Your task to perform on an android device: Open the Play Movies app and select the watchlist tab. Image 0: 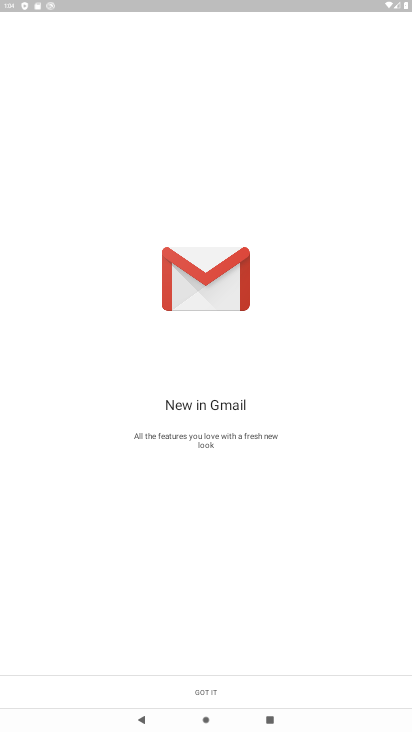
Step 0: press home button
Your task to perform on an android device: Open the Play Movies app and select the watchlist tab. Image 1: 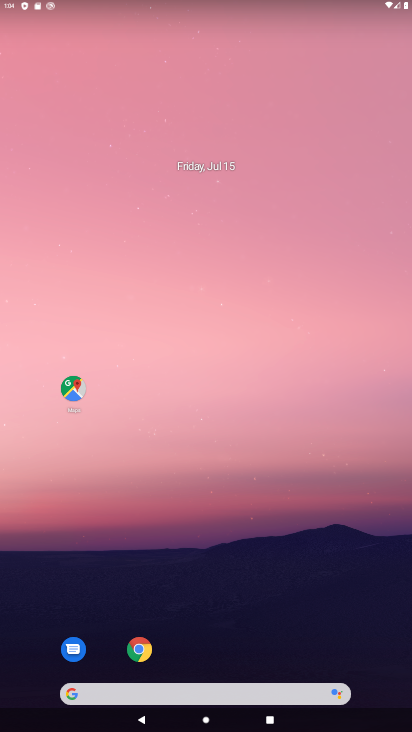
Step 1: drag from (203, 692) to (317, 116)
Your task to perform on an android device: Open the Play Movies app and select the watchlist tab. Image 2: 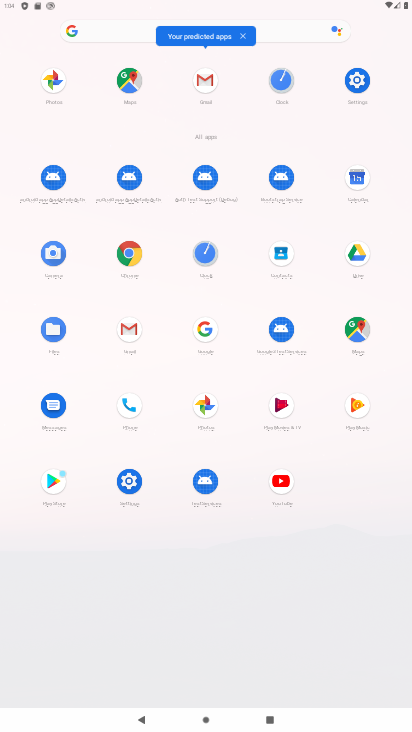
Step 2: click (282, 411)
Your task to perform on an android device: Open the Play Movies app and select the watchlist tab. Image 3: 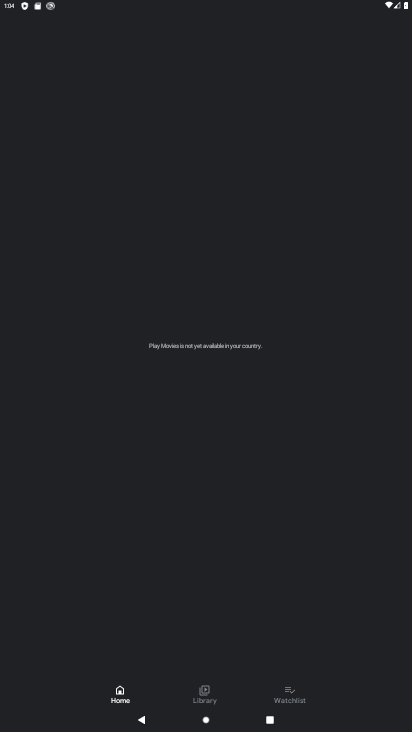
Step 3: click (291, 691)
Your task to perform on an android device: Open the Play Movies app and select the watchlist tab. Image 4: 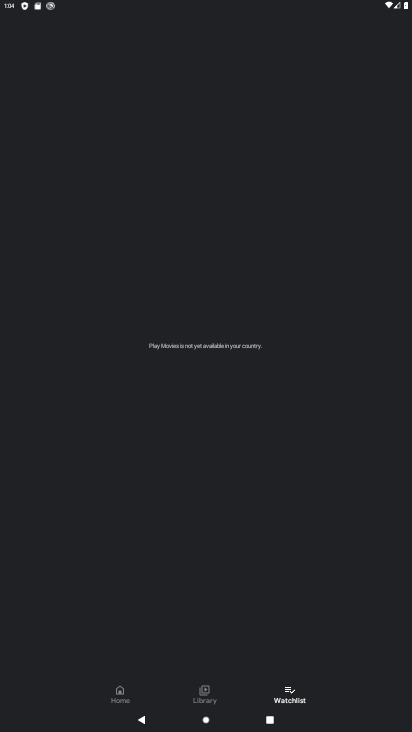
Step 4: task complete